Your task to perform on an android device: install app "Life360: Find Family & Friends" Image 0: 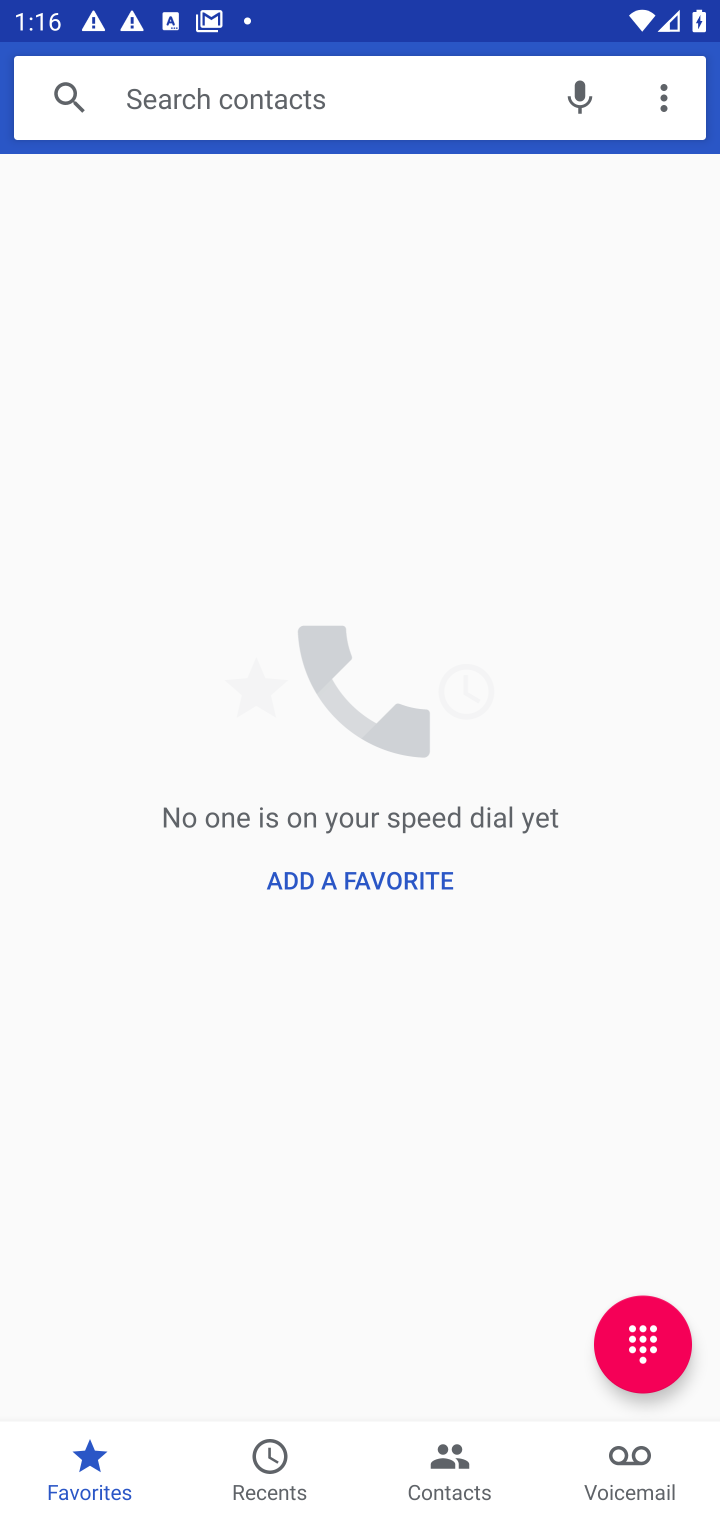
Step 0: press home button
Your task to perform on an android device: install app "Life360: Find Family & Friends" Image 1: 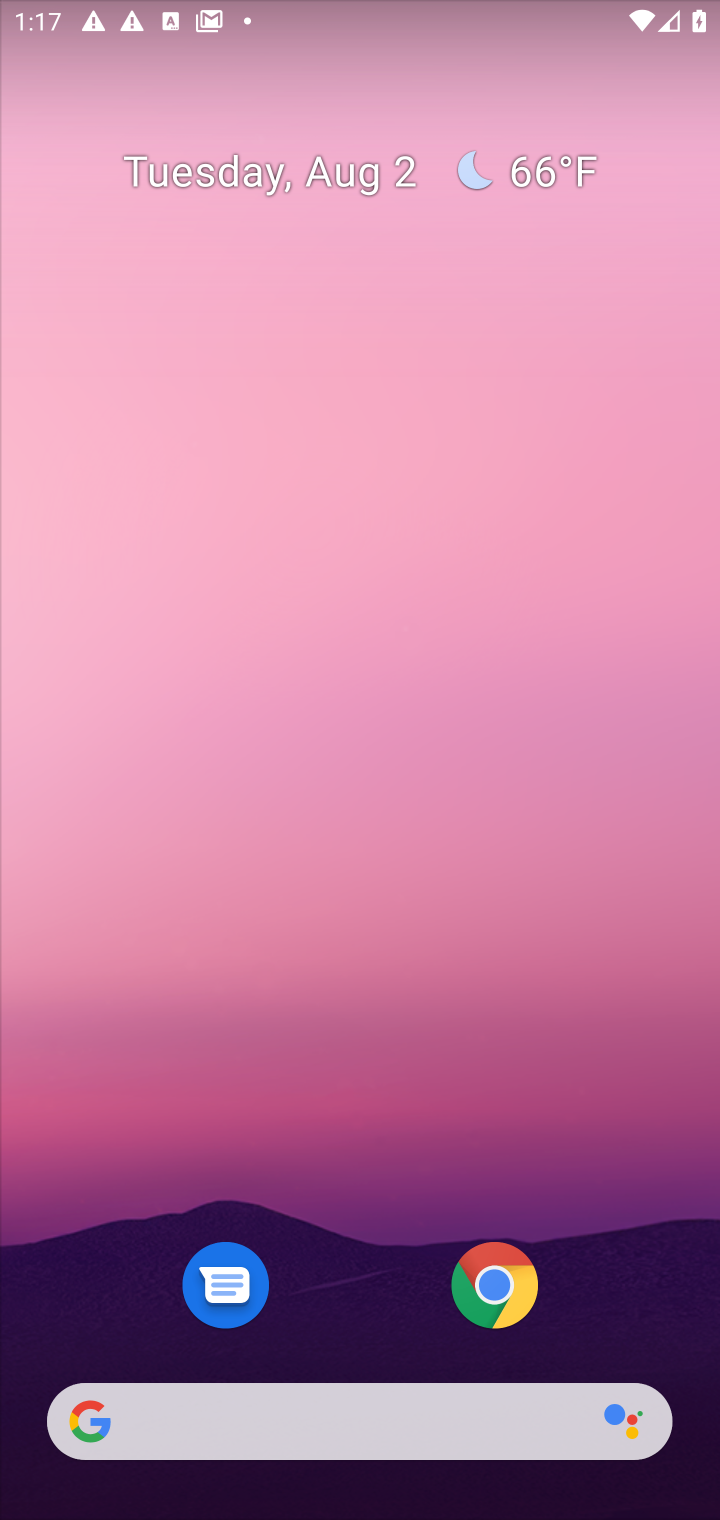
Step 1: drag from (337, 1350) to (472, 285)
Your task to perform on an android device: install app "Life360: Find Family & Friends" Image 2: 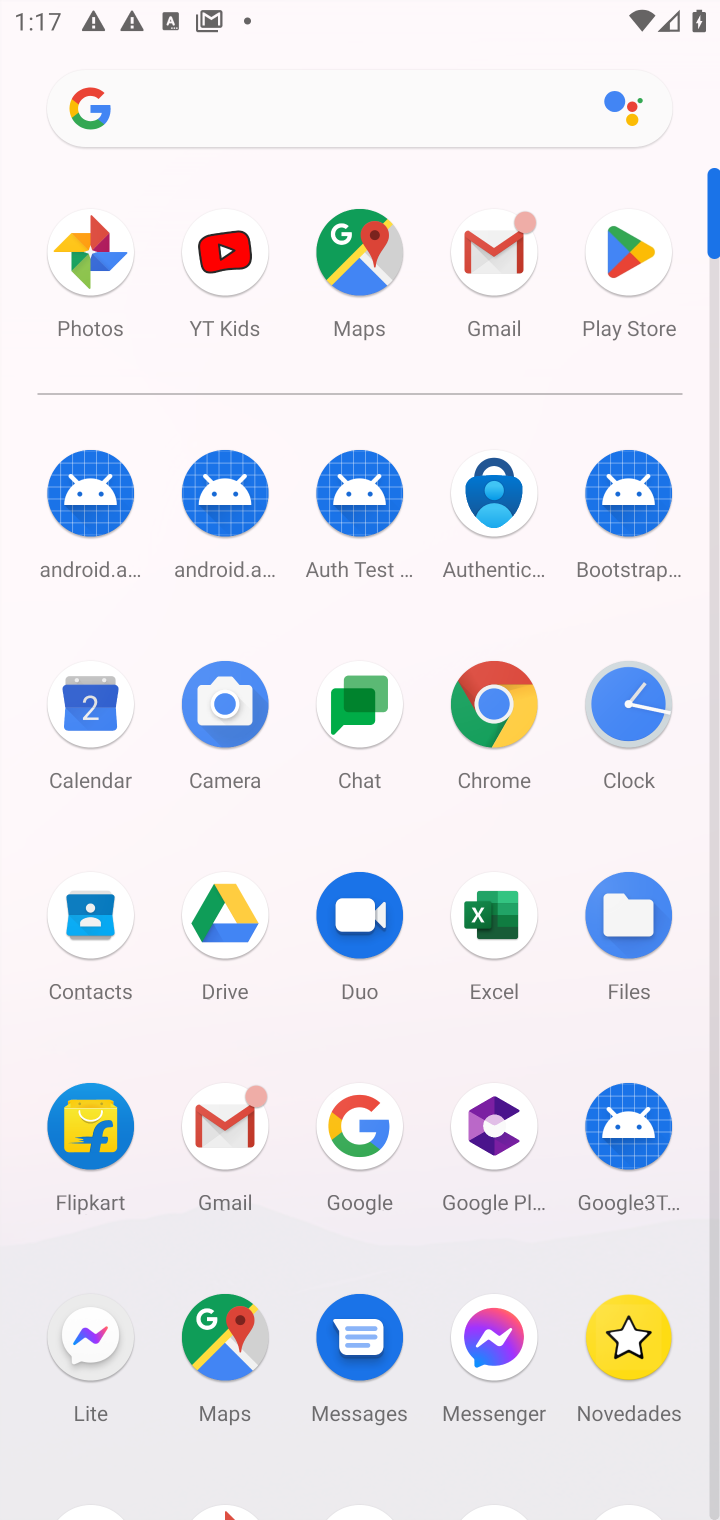
Step 2: click (629, 243)
Your task to perform on an android device: install app "Life360: Find Family & Friends" Image 3: 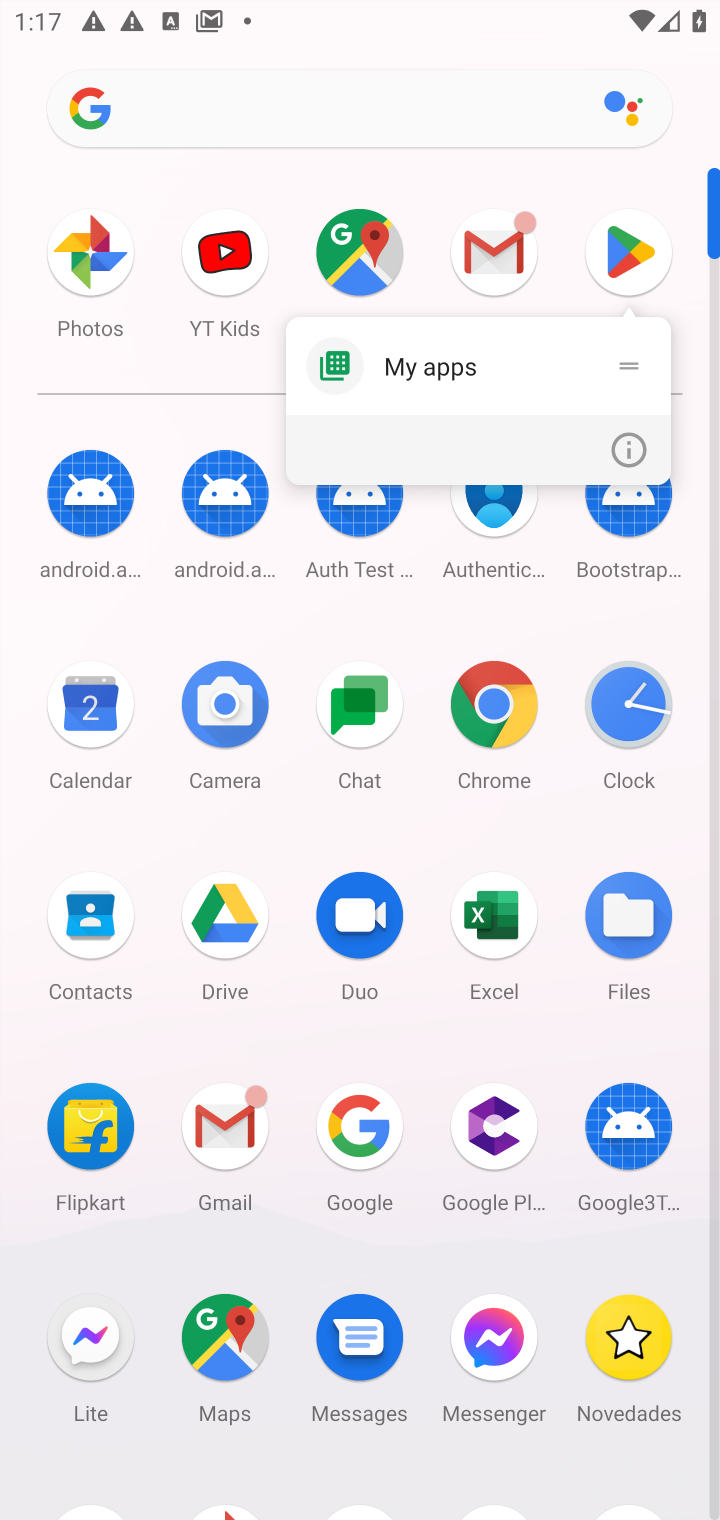
Step 3: click (416, 1253)
Your task to perform on an android device: install app "Life360: Find Family & Friends" Image 4: 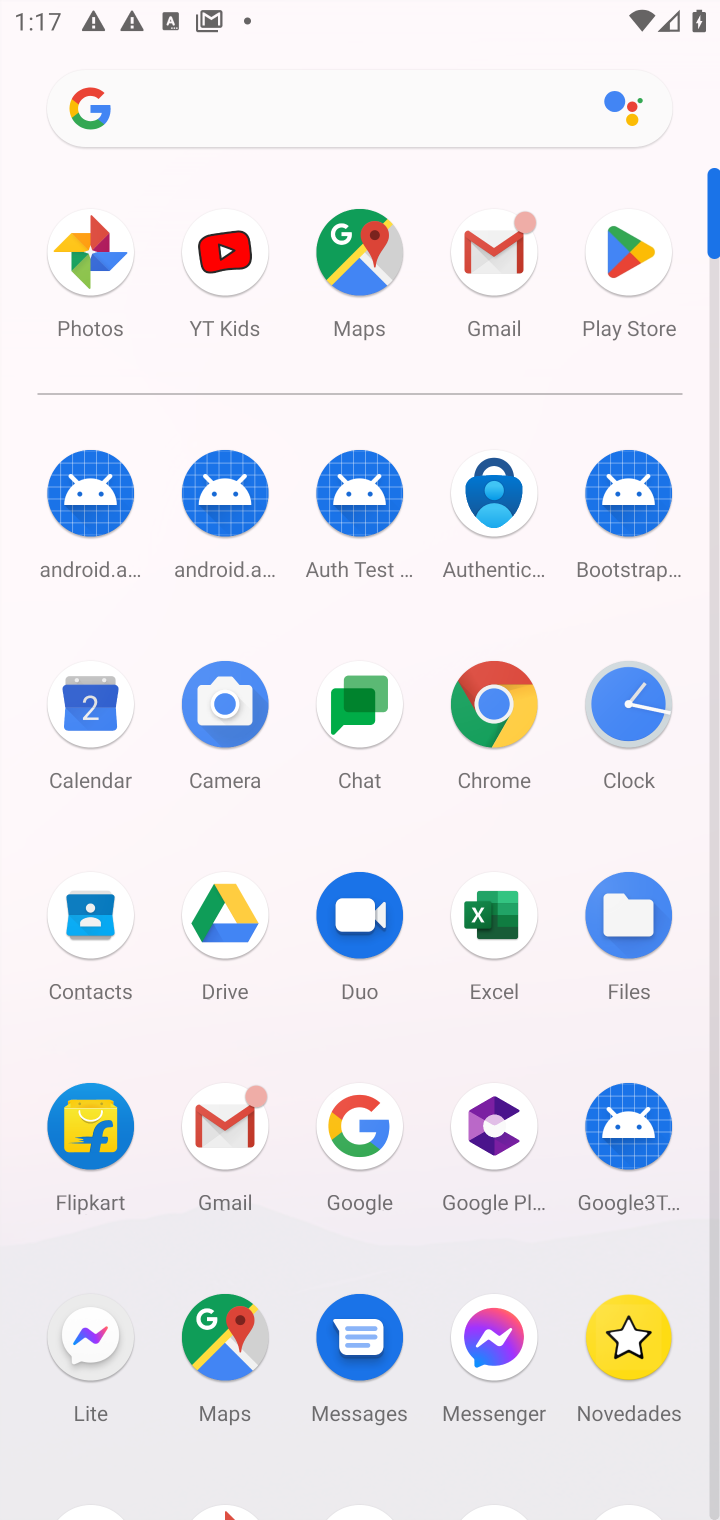
Step 4: drag from (413, 1237) to (423, 616)
Your task to perform on an android device: install app "Life360: Find Family & Friends" Image 5: 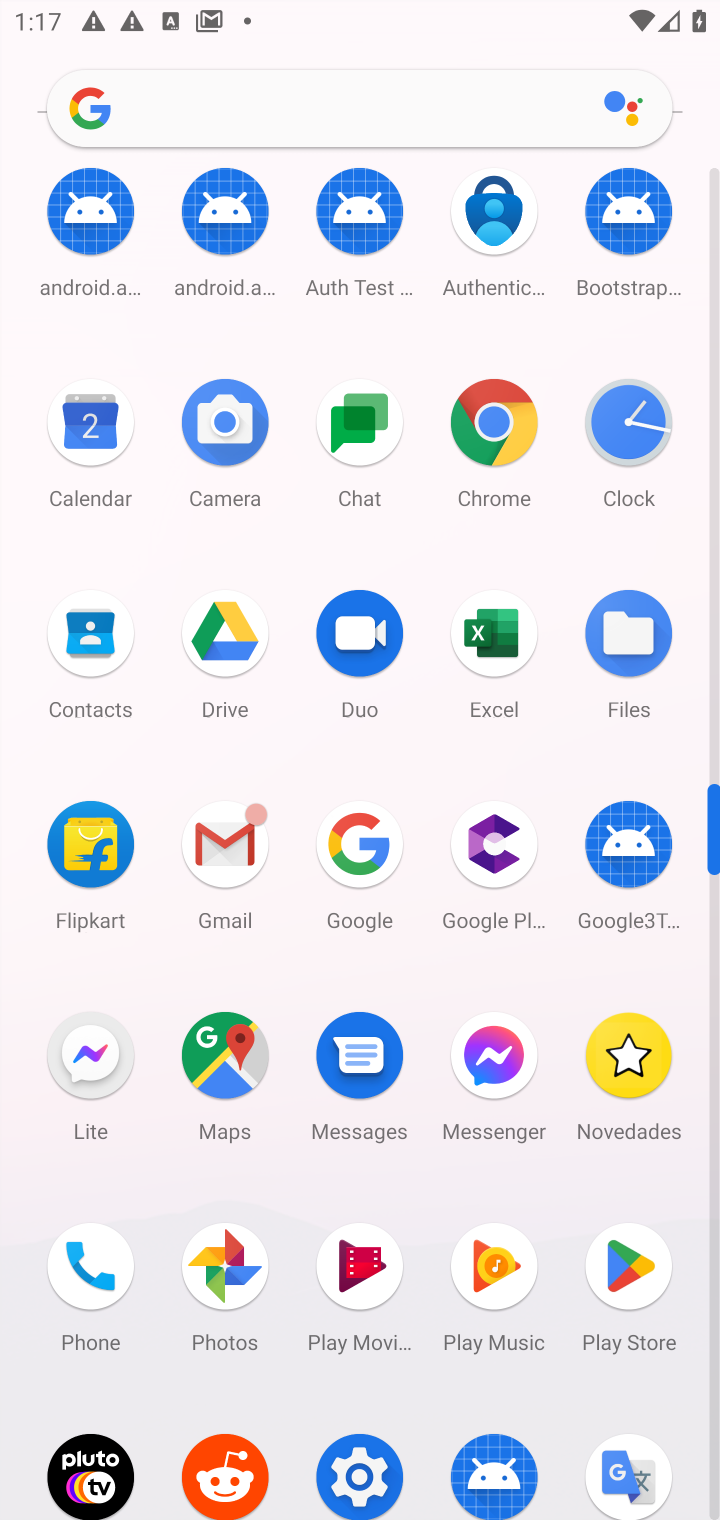
Step 5: click (605, 1277)
Your task to perform on an android device: install app "Life360: Find Family & Friends" Image 6: 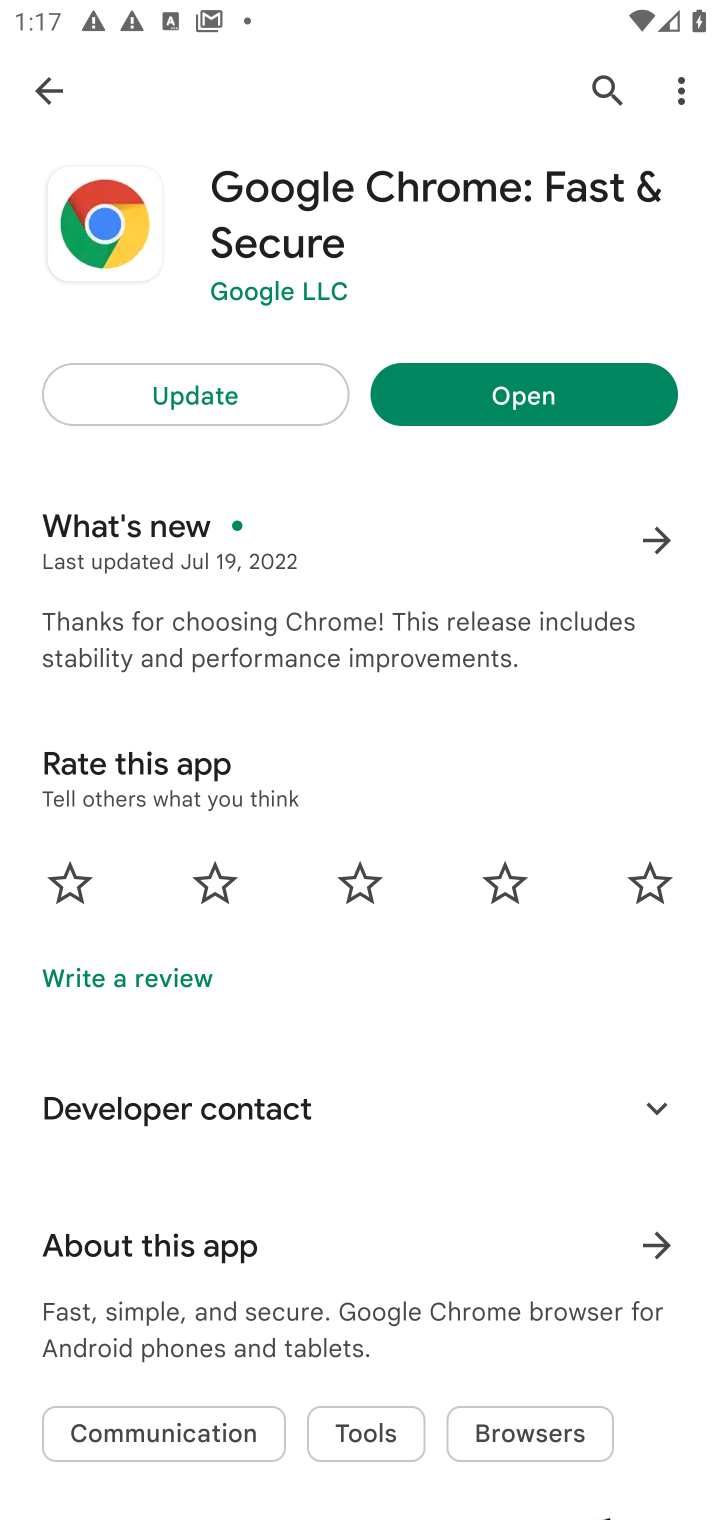
Step 6: press back button
Your task to perform on an android device: install app "Life360: Find Family & Friends" Image 7: 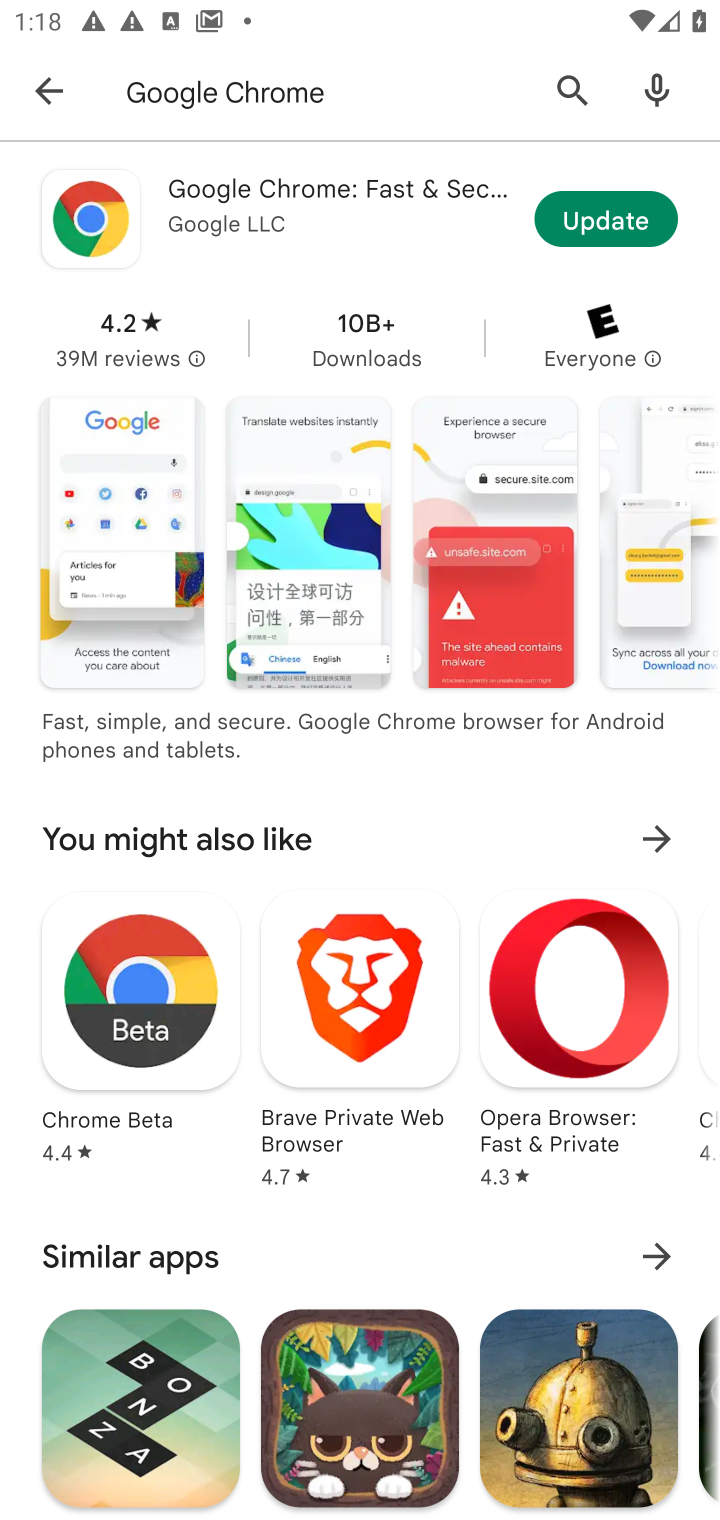
Step 7: click (440, 102)
Your task to perform on an android device: install app "Life360: Find Family & Friends" Image 8: 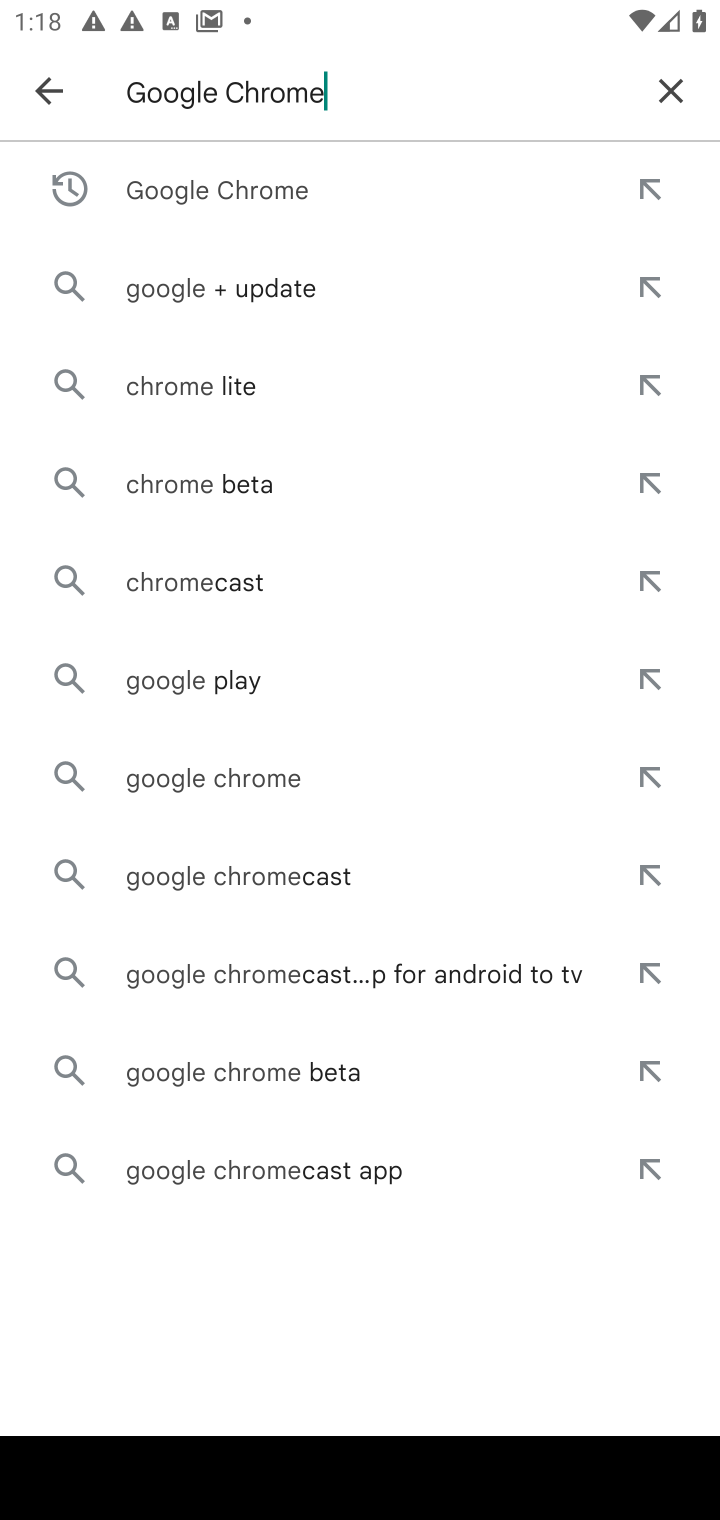
Step 8: click (685, 72)
Your task to perform on an android device: install app "Life360: Find Family & Friends" Image 9: 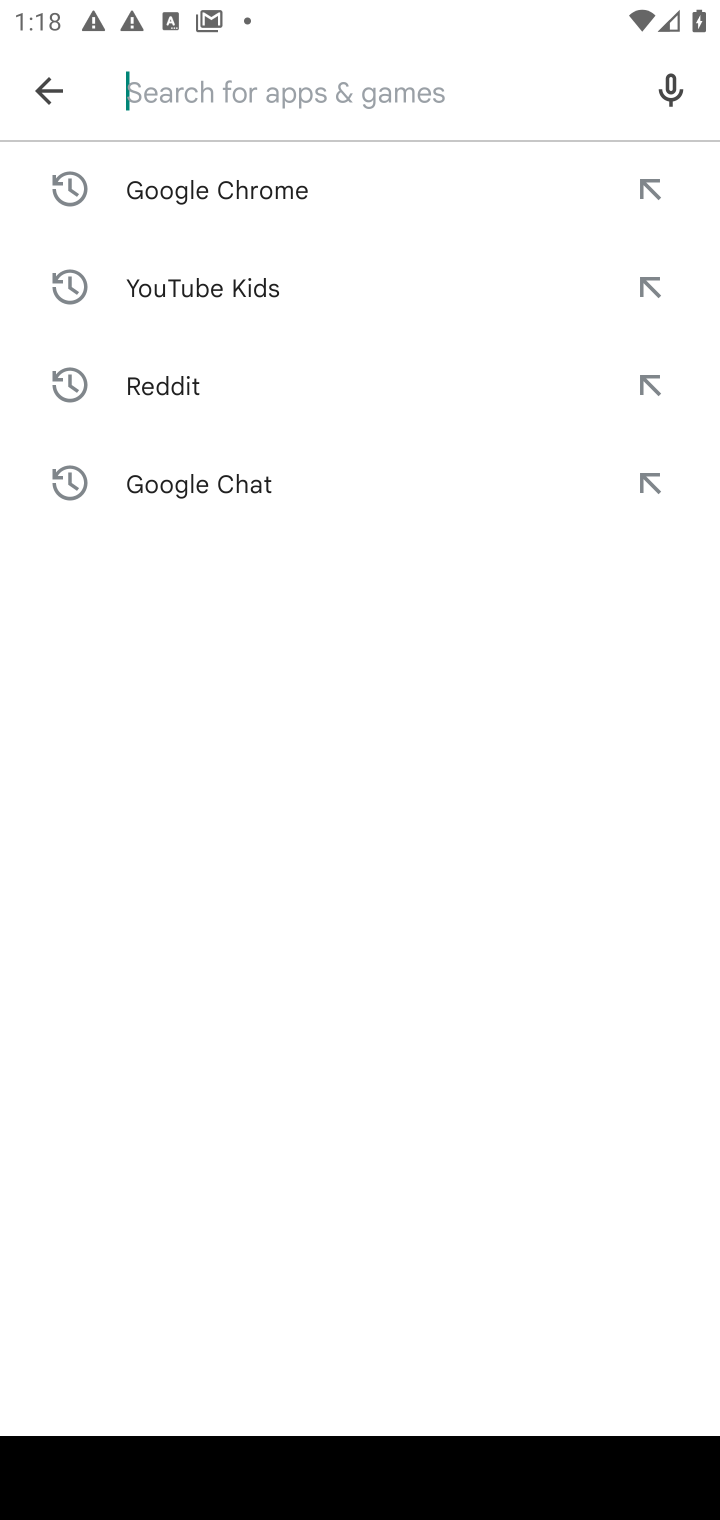
Step 9: type "Life360: Find Faminly & Friends"
Your task to perform on an android device: install app "Life360: Find Family & Friends" Image 10: 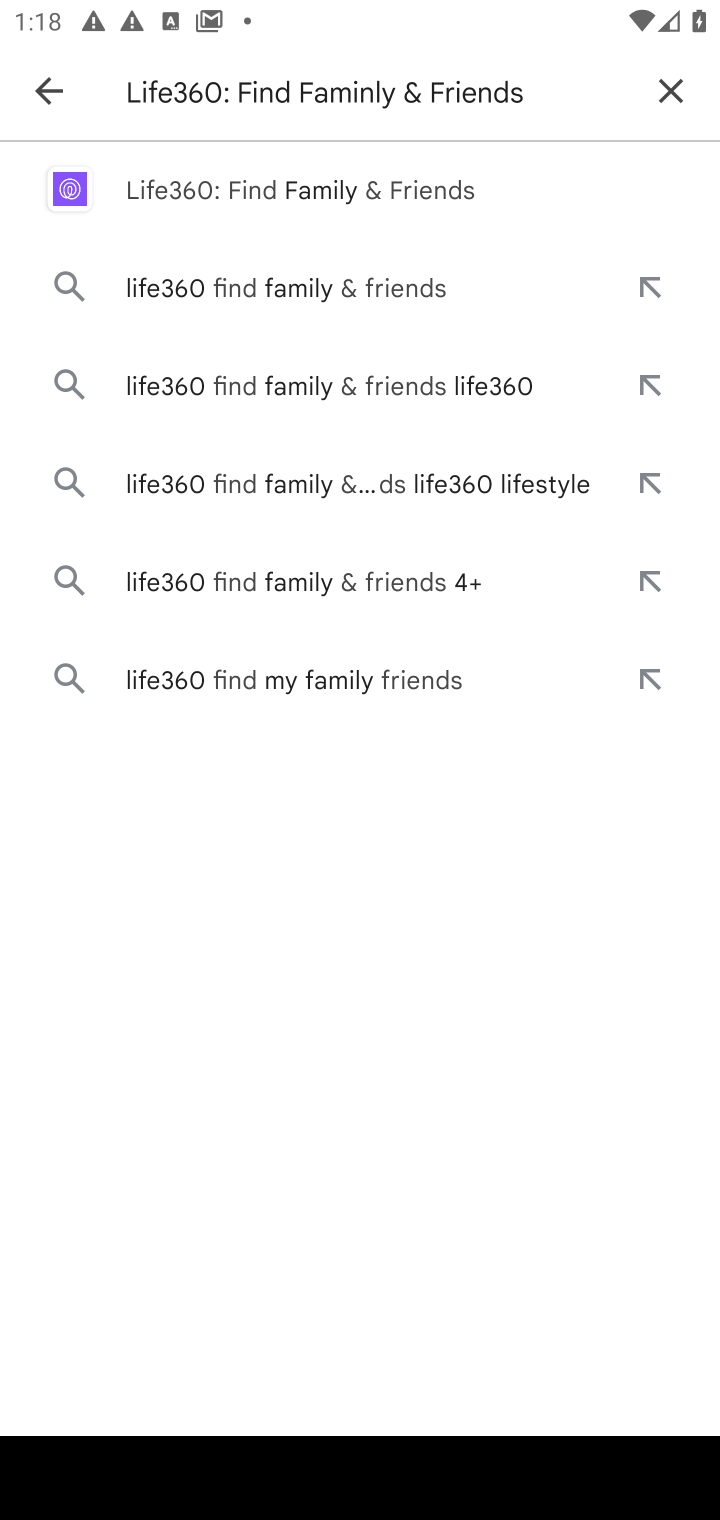
Step 10: press enter
Your task to perform on an android device: install app "Life360: Find Family & Friends" Image 11: 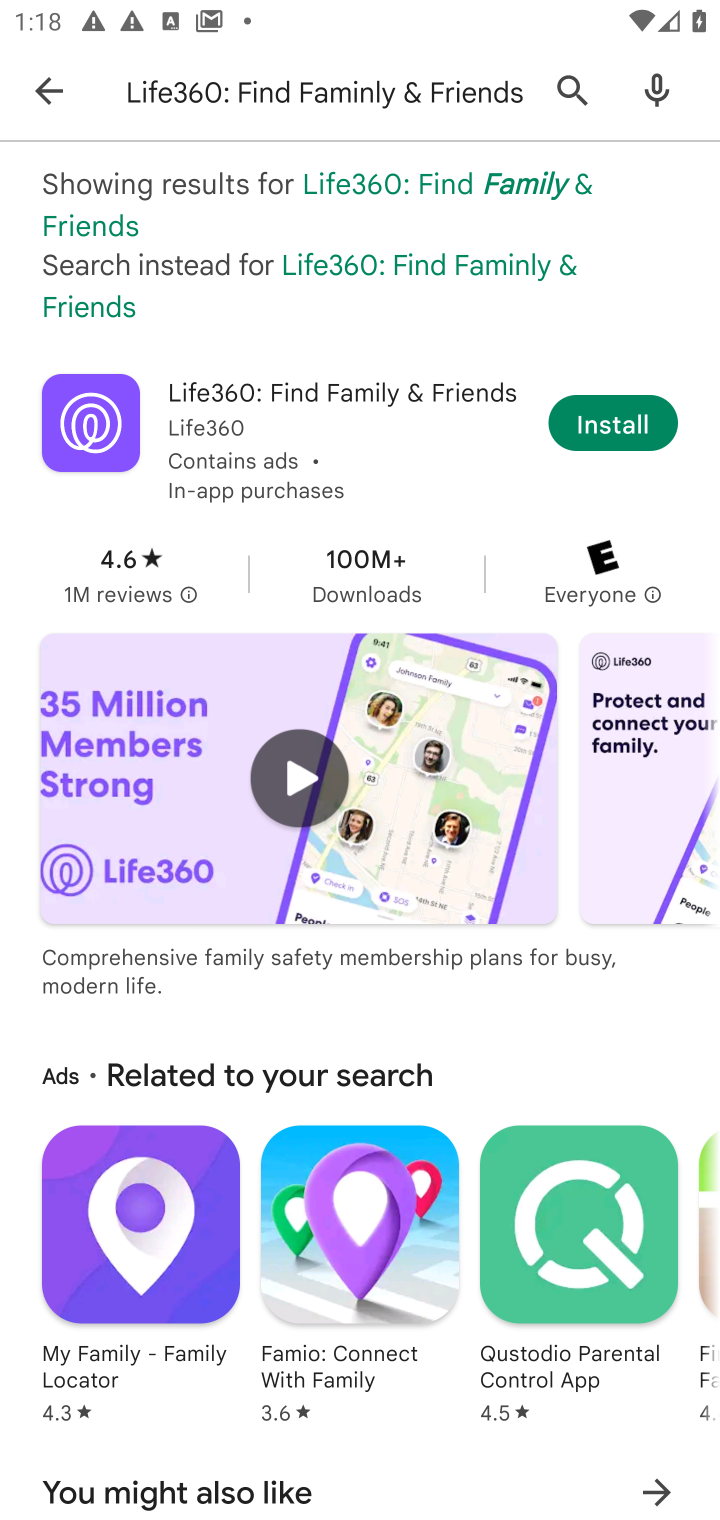
Step 11: click (605, 425)
Your task to perform on an android device: install app "Life360: Find Family & Friends" Image 12: 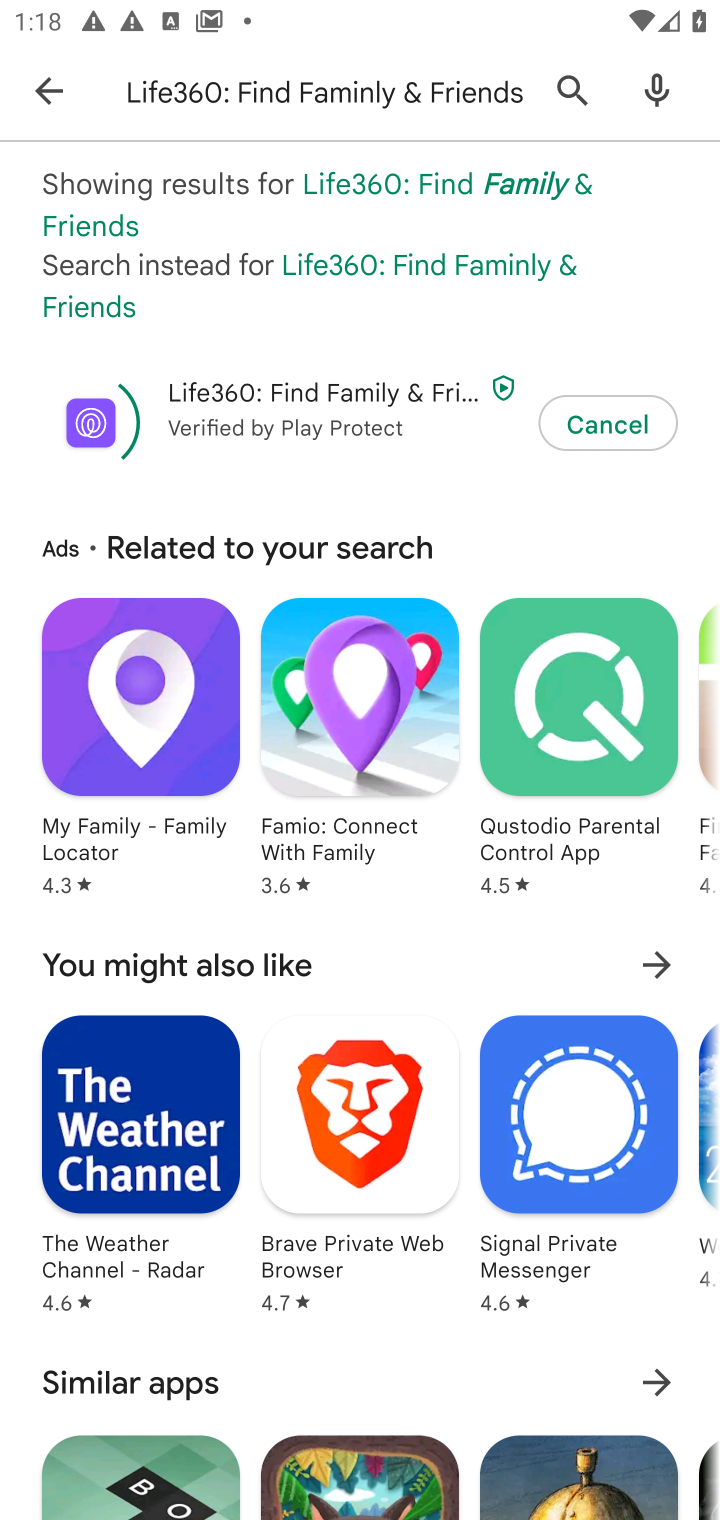
Step 12: click (204, 415)
Your task to perform on an android device: install app "Life360: Find Family & Friends" Image 13: 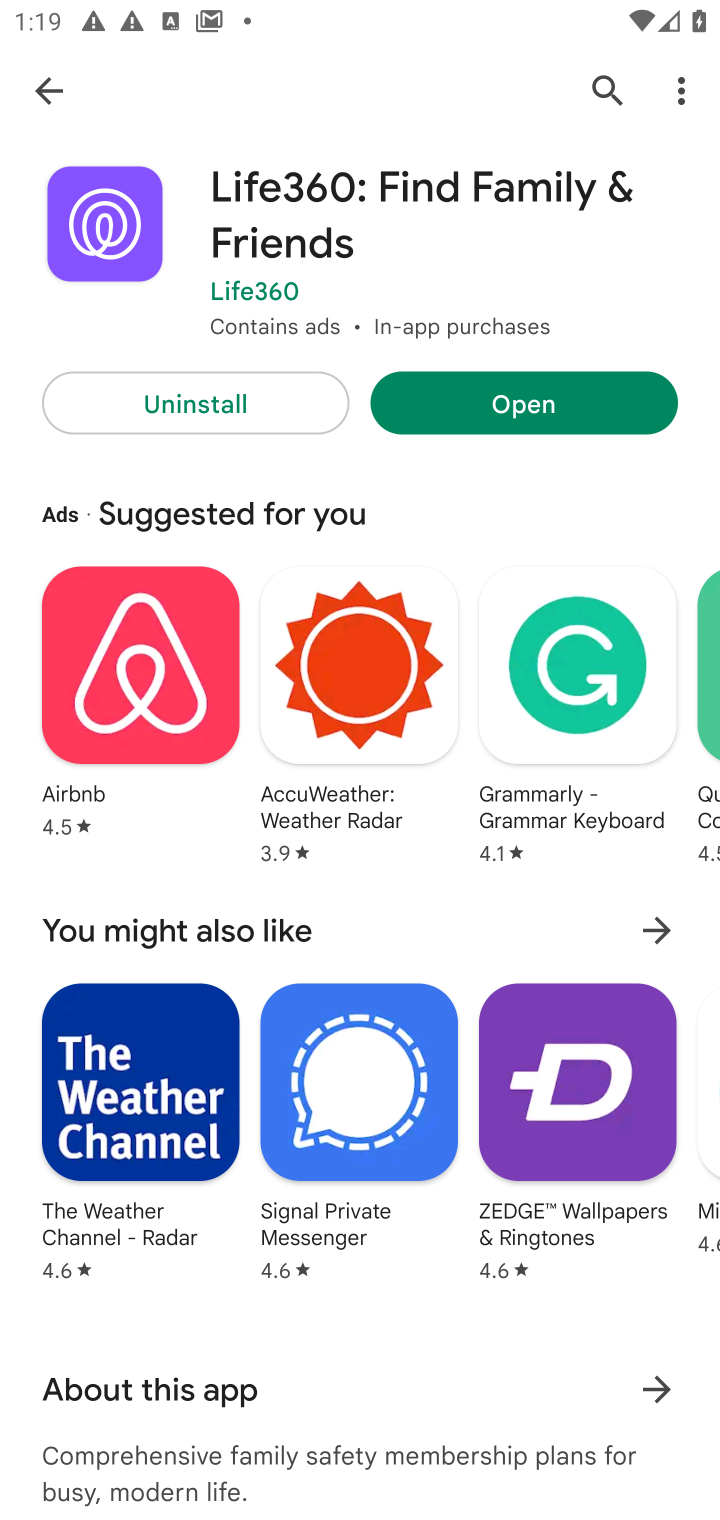
Step 13: task complete